Your task to perform on an android device: Open Google Maps Image 0: 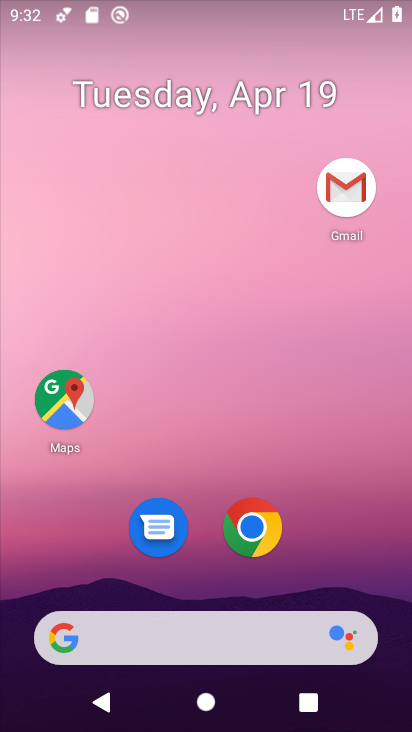
Step 0: drag from (369, 544) to (371, 143)
Your task to perform on an android device: Open Google Maps Image 1: 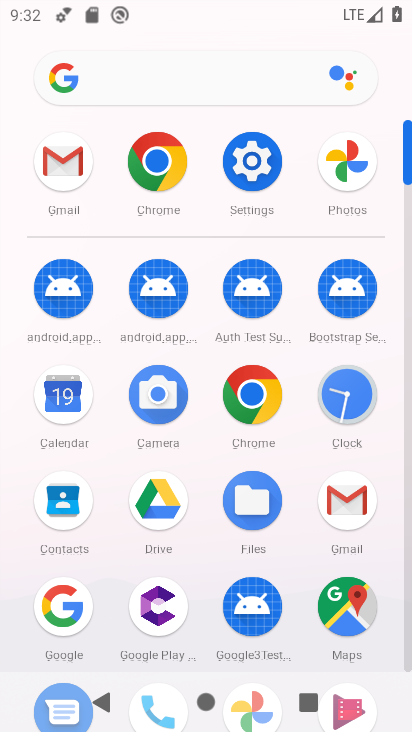
Step 1: click (331, 617)
Your task to perform on an android device: Open Google Maps Image 2: 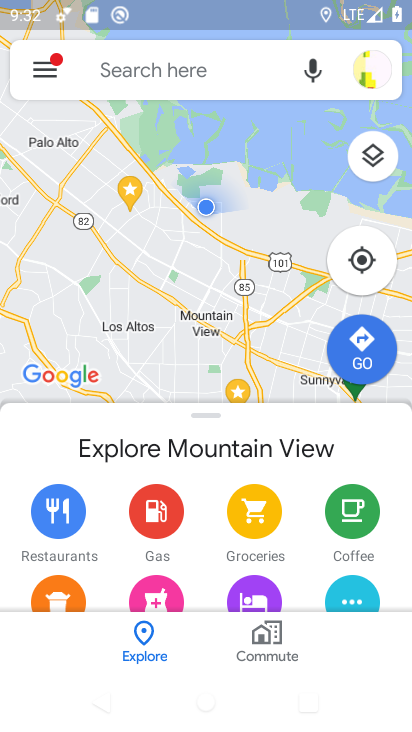
Step 2: task complete